Your task to perform on an android device: Open calendar and show me the second week of next month Image 0: 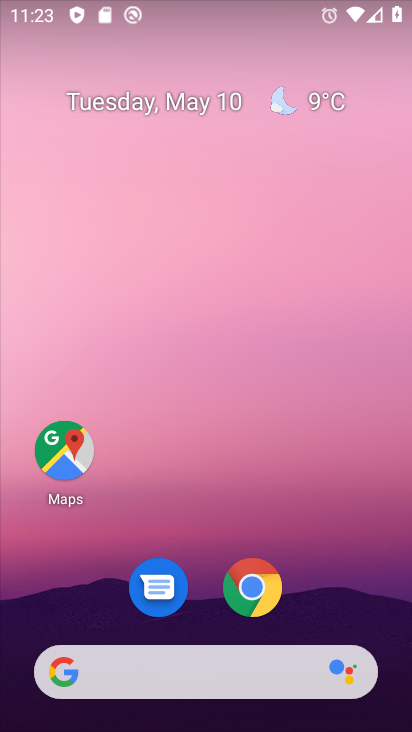
Step 0: drag from (368, 613) to (407, 0)
Your task to perform on an android device: Open calendar and show me the second week of next month Image 1: 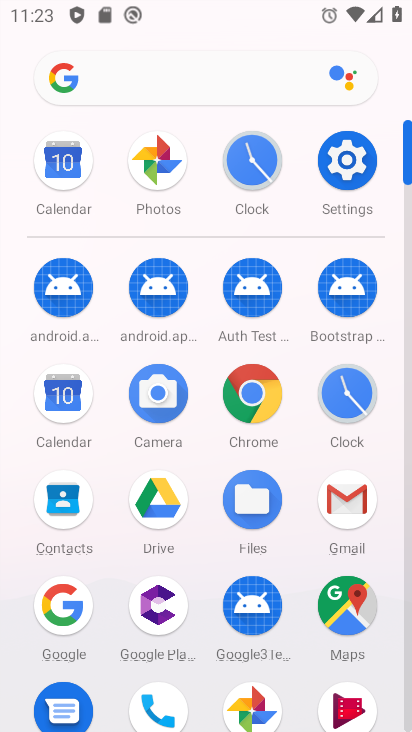
Step 1: click (63, 170)
Your task to perform on an android device: Open calendar and show me the second week of next month Image 2: 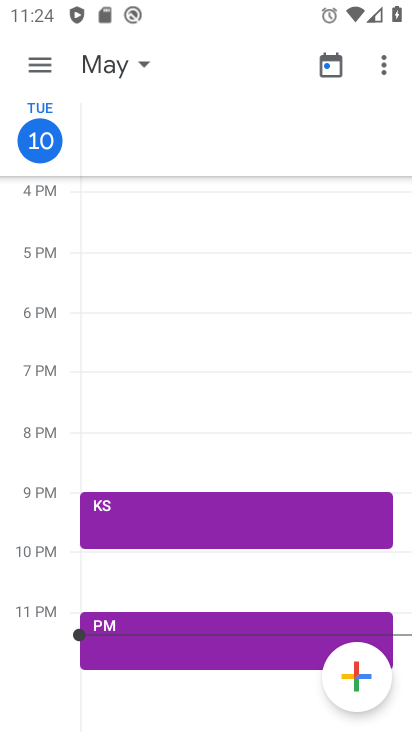
Step 2: click (143, 66)
Your task to perform on an android device: Open calendar and show me the second week of next month Image 3: 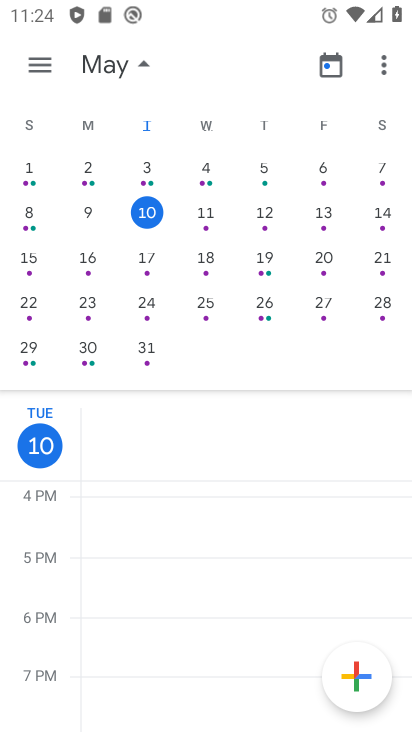
Step 3: drag from (356, 250) to (10, 265)
Your task to perform on an android device: Open calendar and show me the second week of next month Image 4: 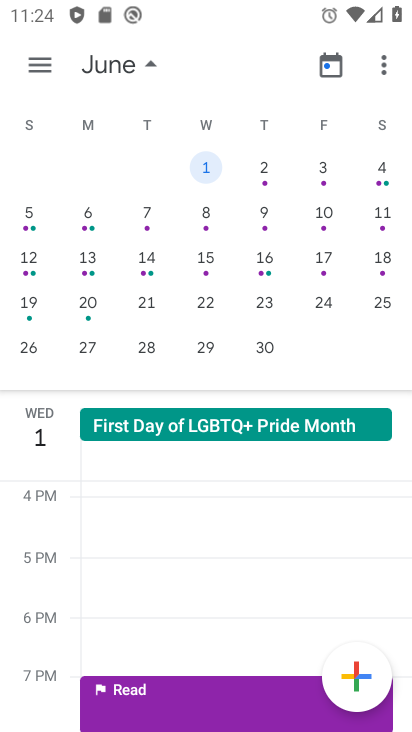
Step 4: click (40, 68)
Your task to perform on an android device: Open calendar and show me the second week of next month Image 5: 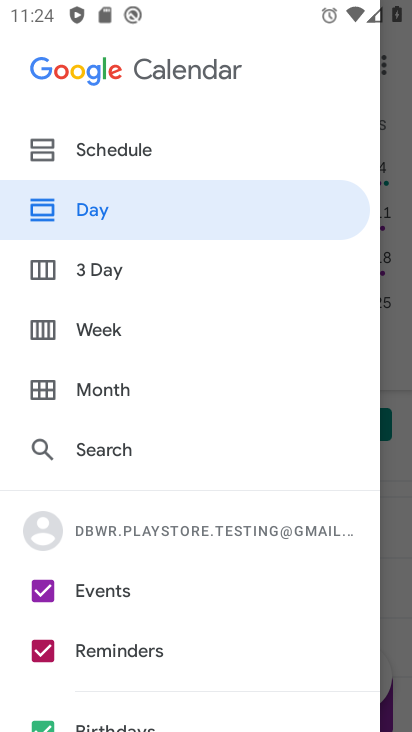
Step 5: click (101, 330)
Your task to perform on an android device: Open calendar and show me the second week of next month Image 6: 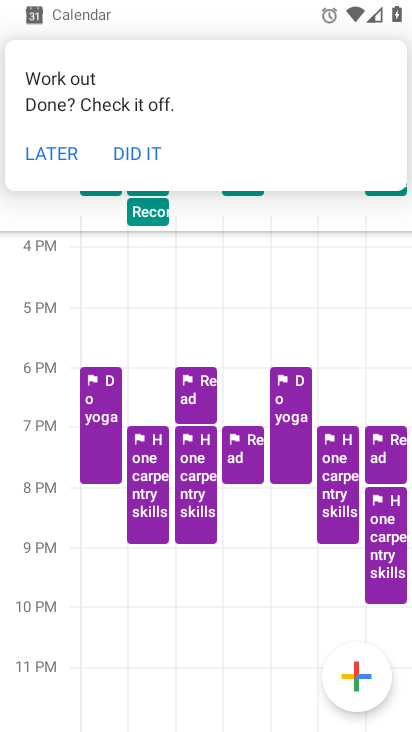
Step 6: click (67, 155)
Your task to perform on an android device: Open calendar and show me the second week of next month Image 7: 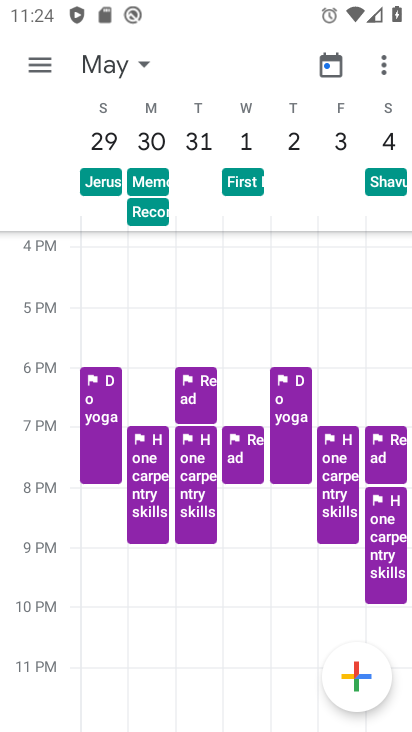
Step 7: drag from (342, 442) to (39, 369)
Your task to perform on an android device: Open calendar and show me the second week of next month Image 8: 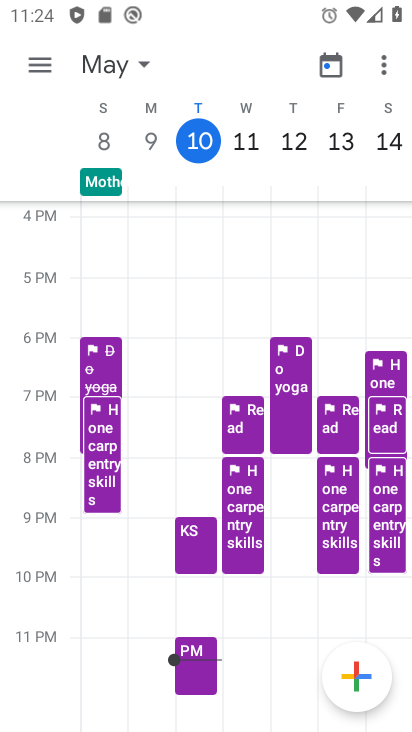
Step 8: drag from (354, 413) to (56, 394)
Your task to perform on an android device: Open calendar and show me the second week of next month Image 9: 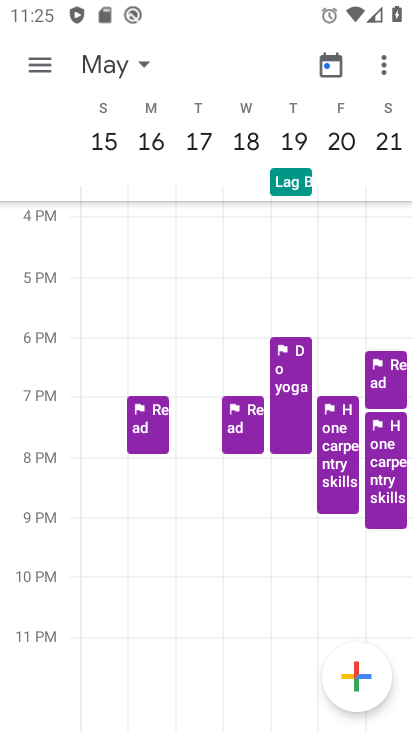
Step 9: click (143, 62)
Your task to perform on an android device: Open calendar and show me the second week of next month Image 10: 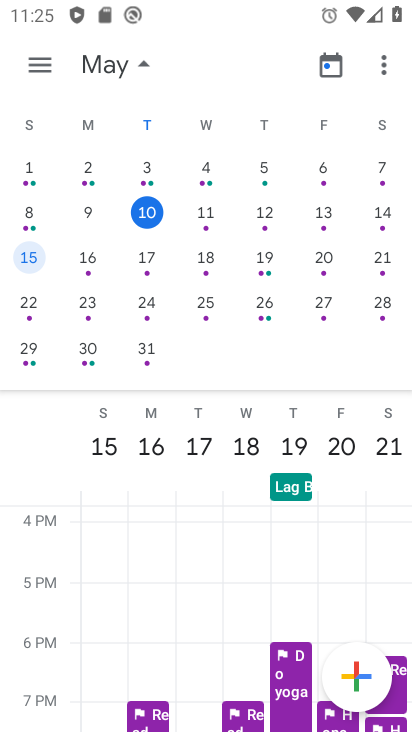
Step 10: task complete